Your task to perform on an android device: turn on airplane mode Image 0: 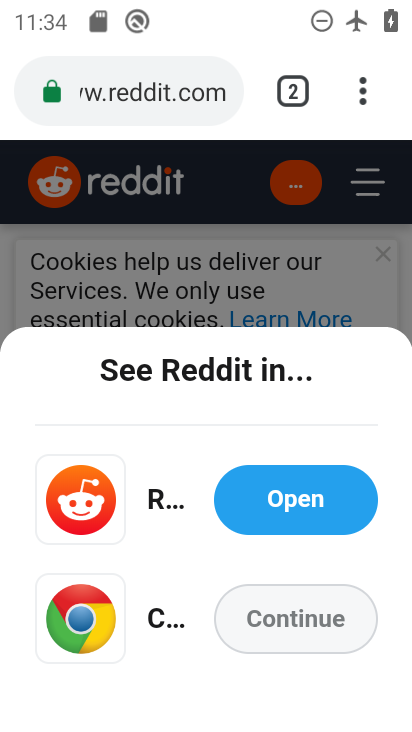
Step 0: press home button
Your task to perform on an android device: turn on airplane mode Image 1: 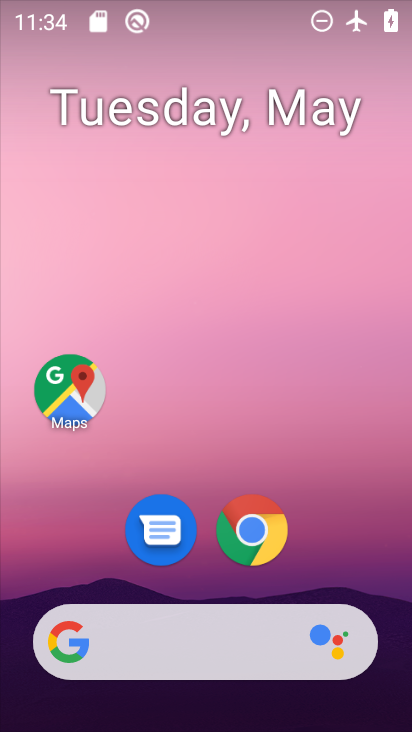
Step 1: drag from (336, 405) to (298, 56)
Your task to perform on an android device: turn on airplane mode Image 2: 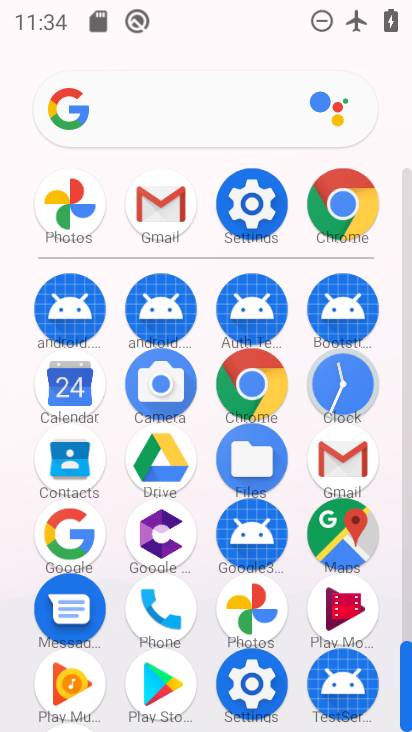
Step 2: click (252, 196)
Your task to perform on an android device: turn on airplane mode Image 3: 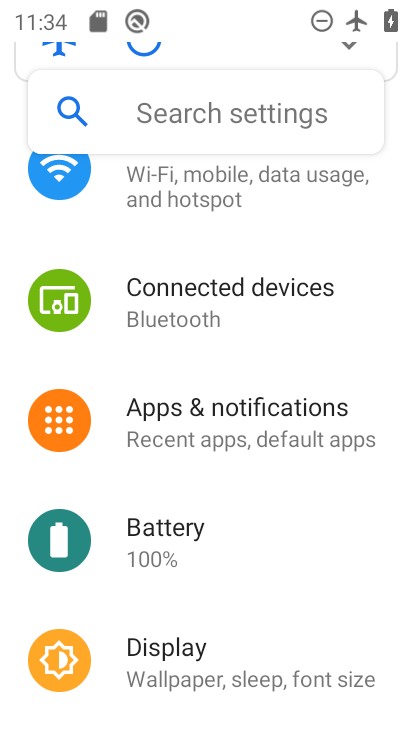
Step 3: click (204, 190)
Your task to perform on an android device: turn on airplane mode Image 4: 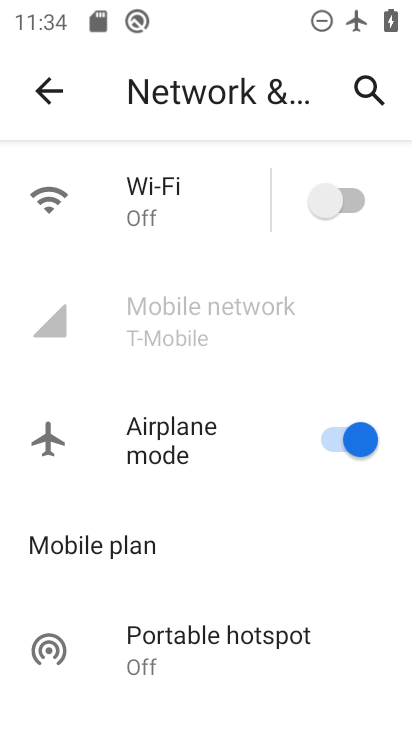
Step 4: task complete